Your task to perform on an android device: turn off wifi Image 0: 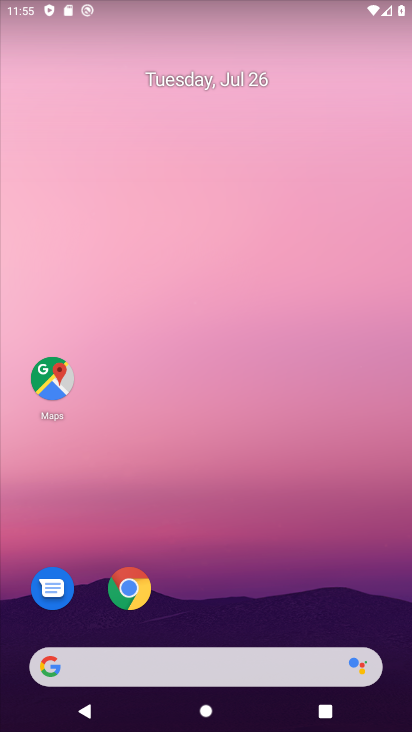
Step 0: drag from (37, 692) to (194, 293)
Your task to perform on an android device: turn off wifi Image 1: 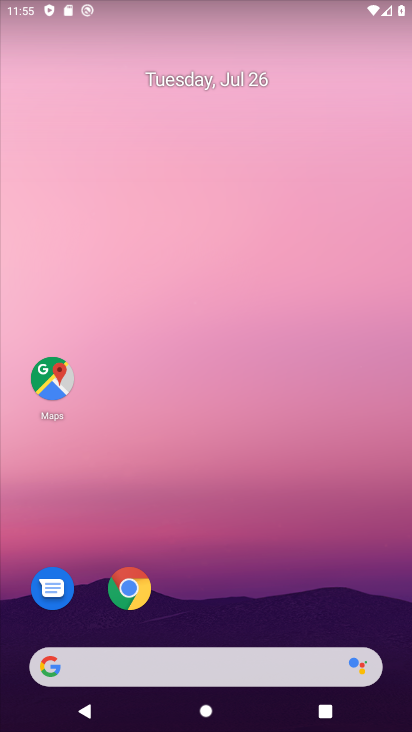
Step 1: drag from (47, 701) to (187, 13)
Your task to perform on an android device: turn off wifi Image 2: 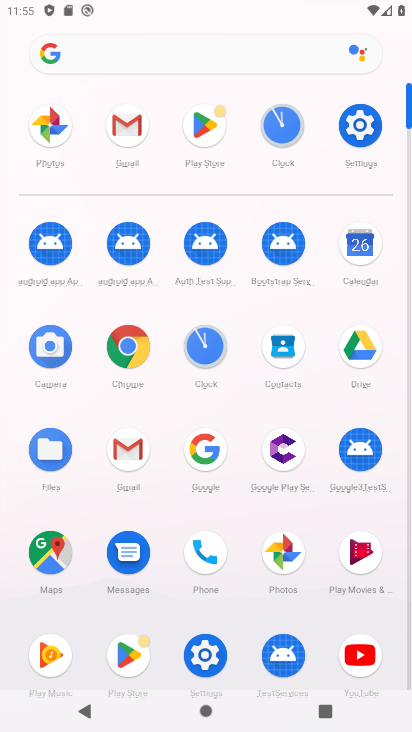
Step 2: click (196, 664)
Your task to perform on an android device: turn off wifi Image 3: 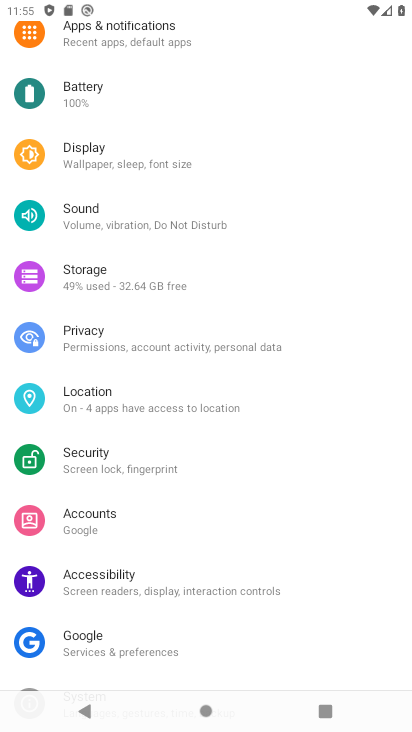
Step 3: drag from (169, 49) to (162, 638)
Your task to perform on an android device: turn off wifi Image 4: 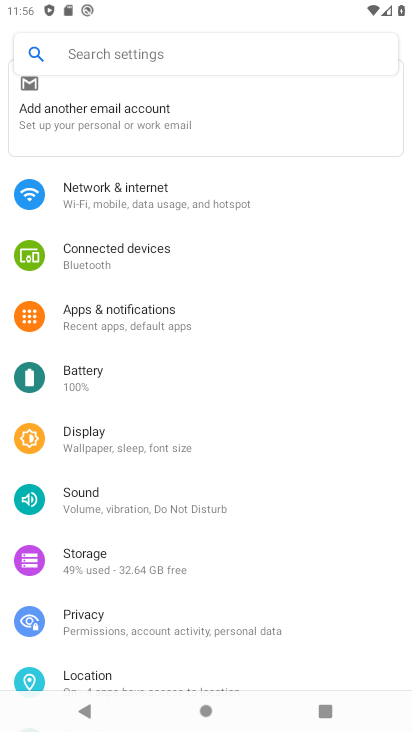
Step 4: click (124, 198)
Your task to perform on an android device: turn off wifi Image 5: 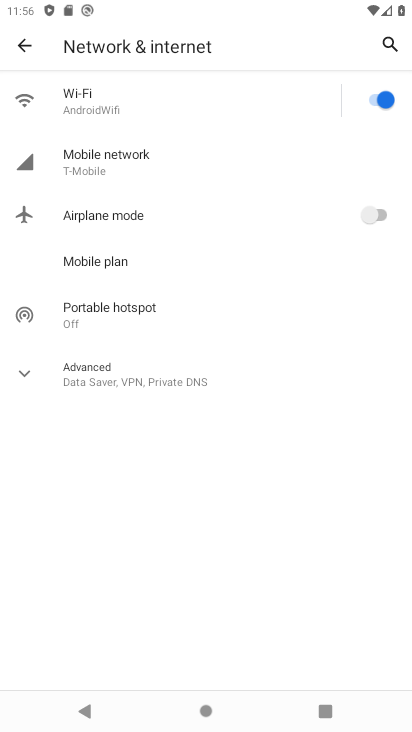
Step 5: task complete